Your task to perform on an android device: turn off translation in the chrome app Image 0: 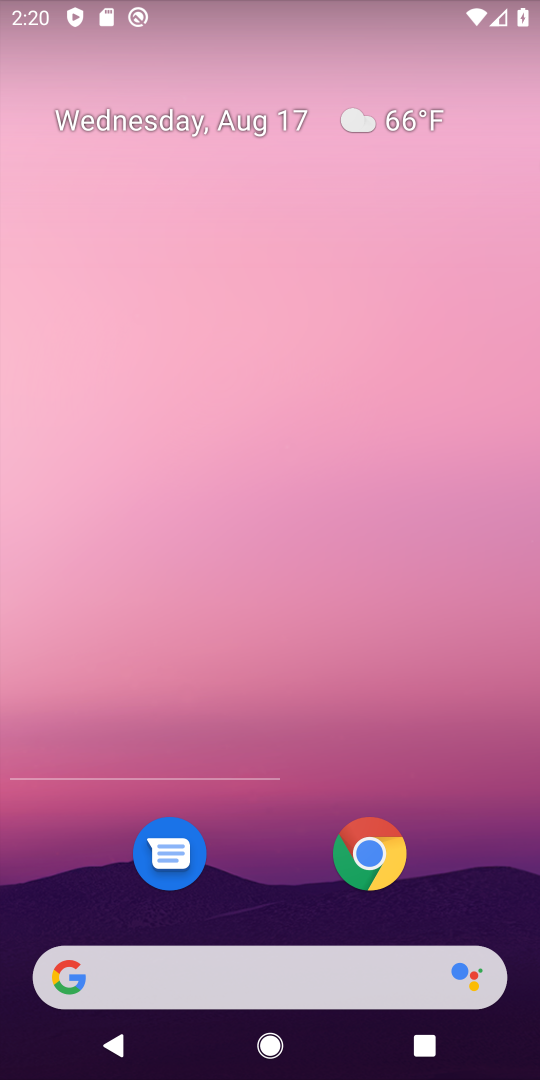
Step 0: press home button
Your task to perform on an android device: turn off translation in the chrome app Image 1: 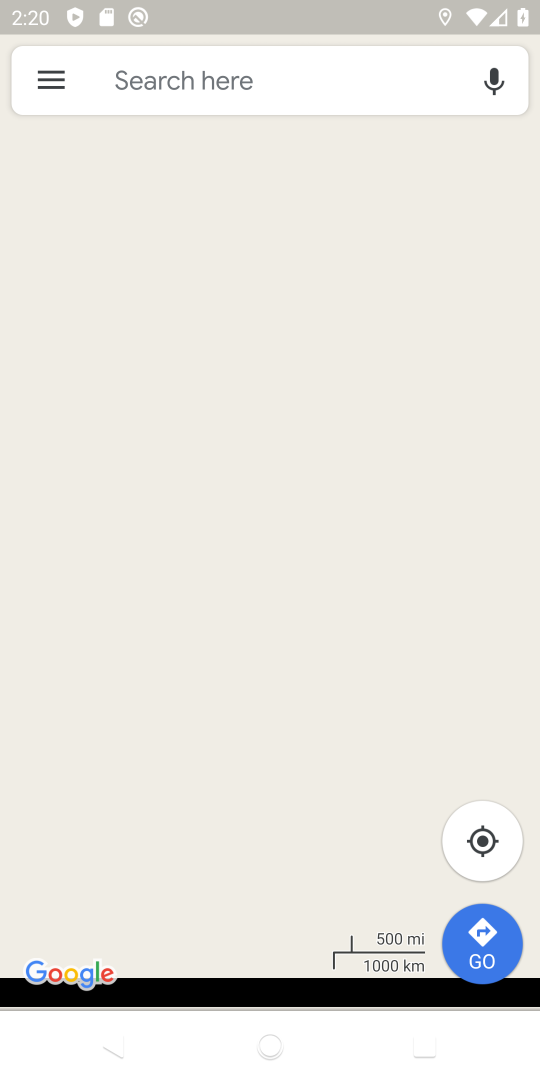
Step 1: click (248, 2)
Your task to perform on an android device: turn off translation in the chrome app Image 2: 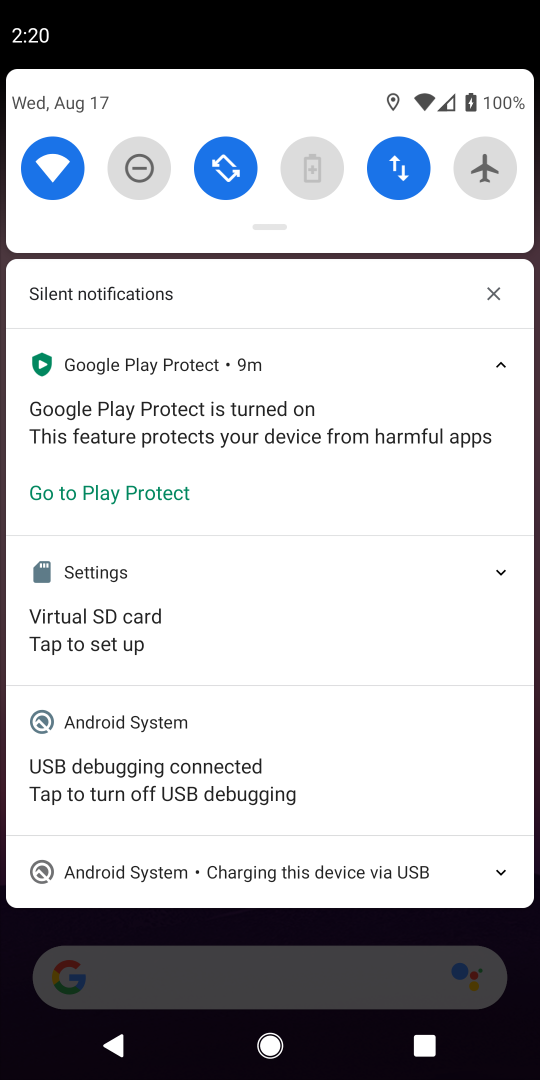
Step 2: press home button
Your task to perform on an android device: turn off translation in the chrome app Image 3: 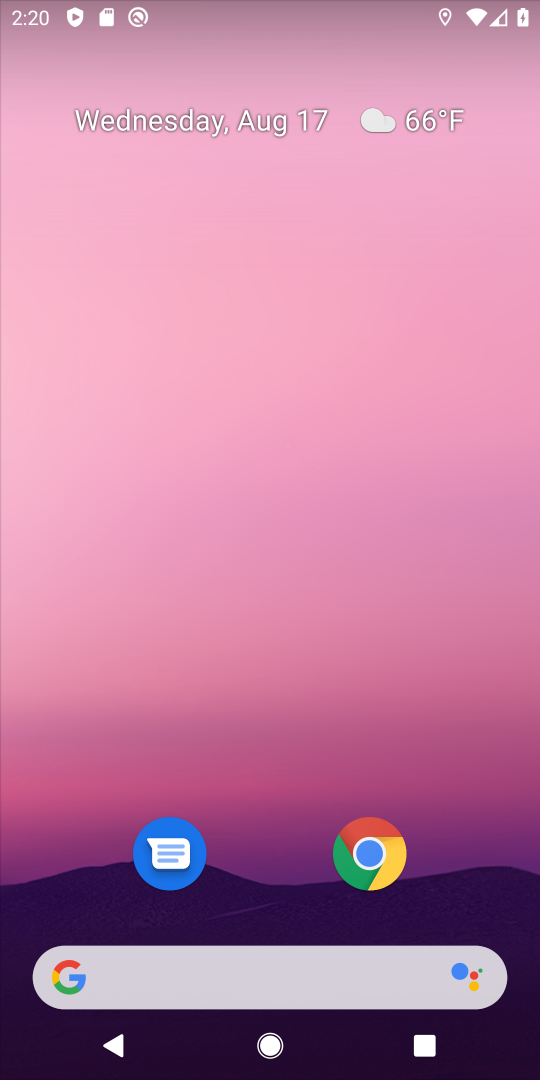
Step 3: click (464, 936)
Your task to perform on an android device: turn off translation in the chrome app Image 4: 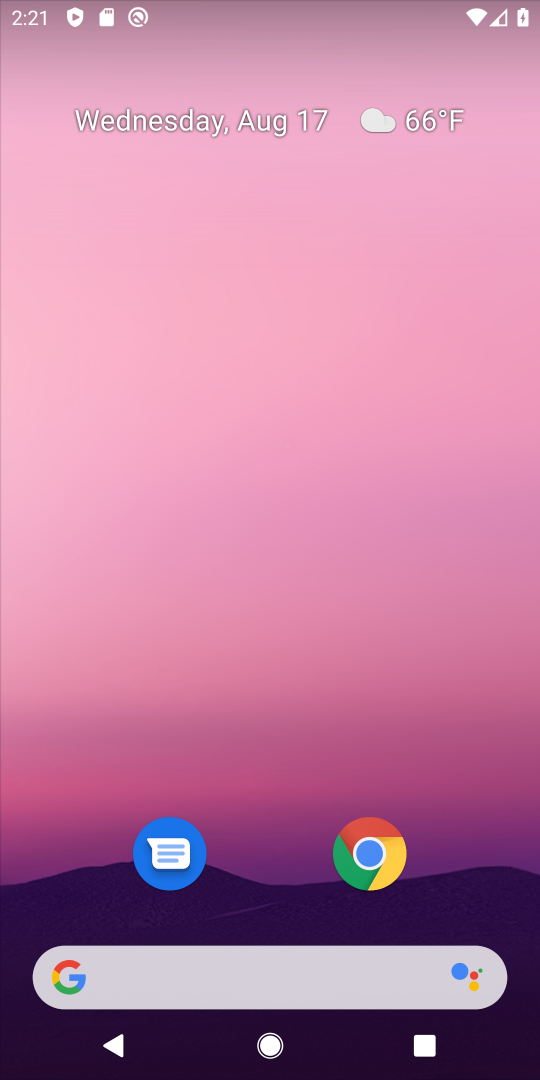
Step 4: drag from (467, 893) to (428, 155)
Your task to perform on an android device: turn off translation in the chrome app Image 5: 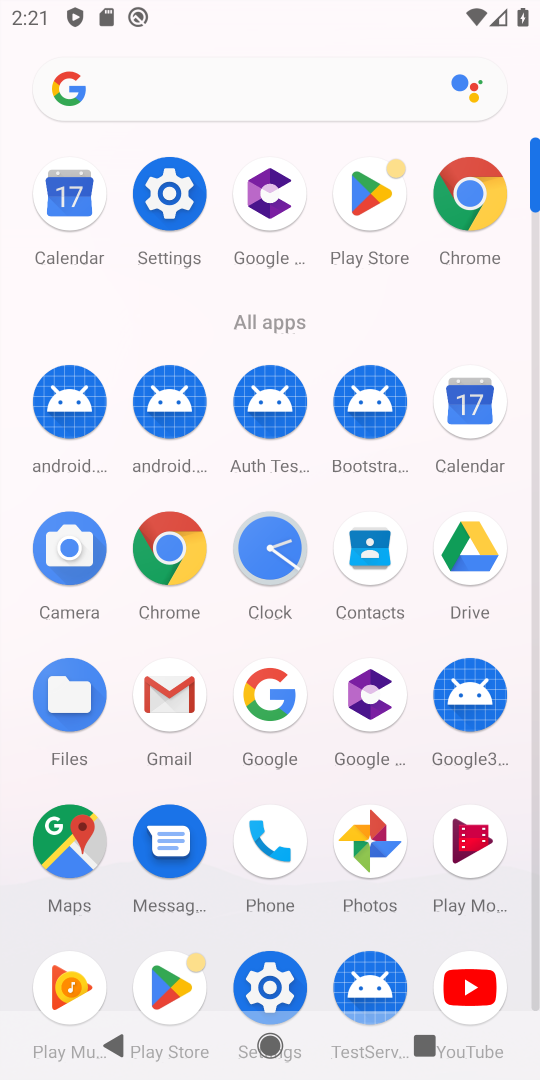
Step 5: click (269, 982)
Your task to perform on an android device: turn off translation in the chrome app Image 6: 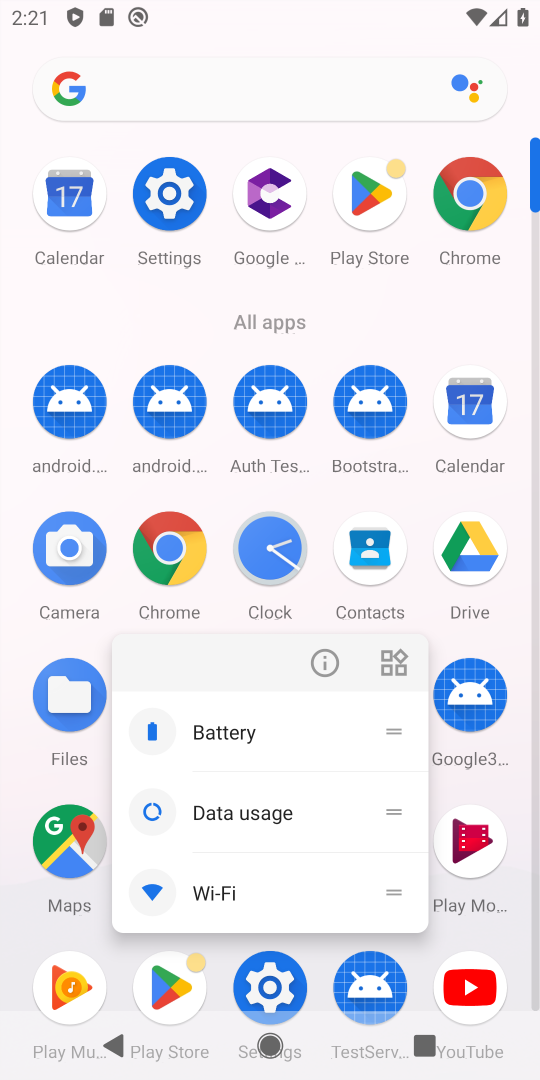
Step 6: click (156, 542)
Your task to perform on an android device: turn off translation in the chrome app Image 7: 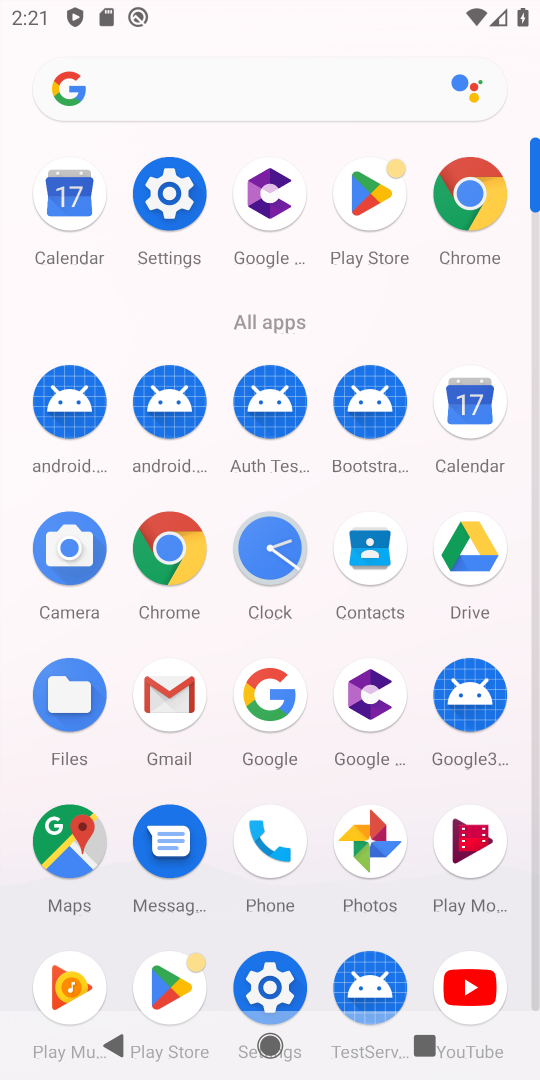
Step 7: click (165, 535)
Your task to perform on an android device: turn off translation in the chrome app Image 8: 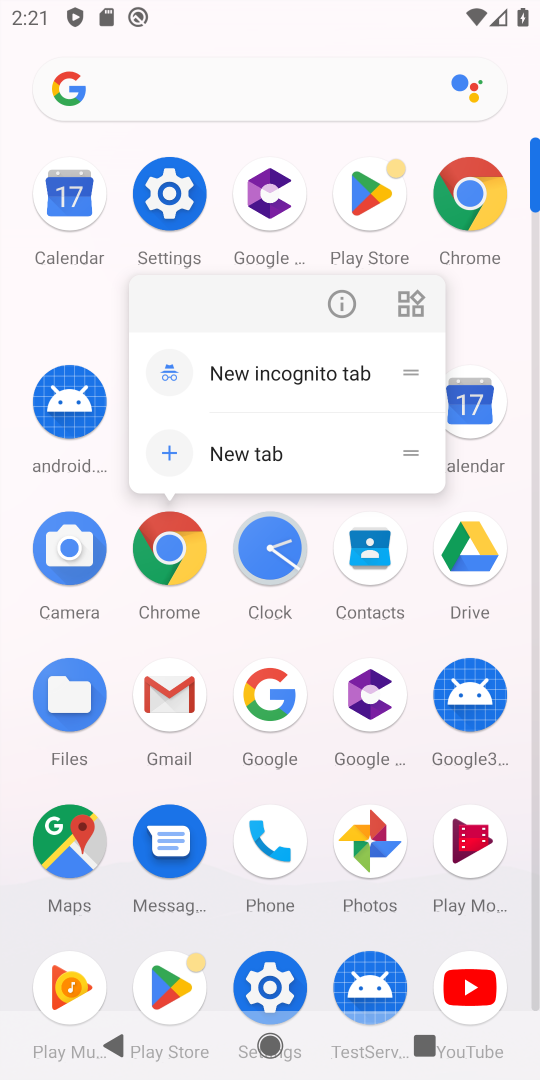
Step 8: click (156, 536)
Your task to perform on an android device: turn off translation in the chrome app Image 9: 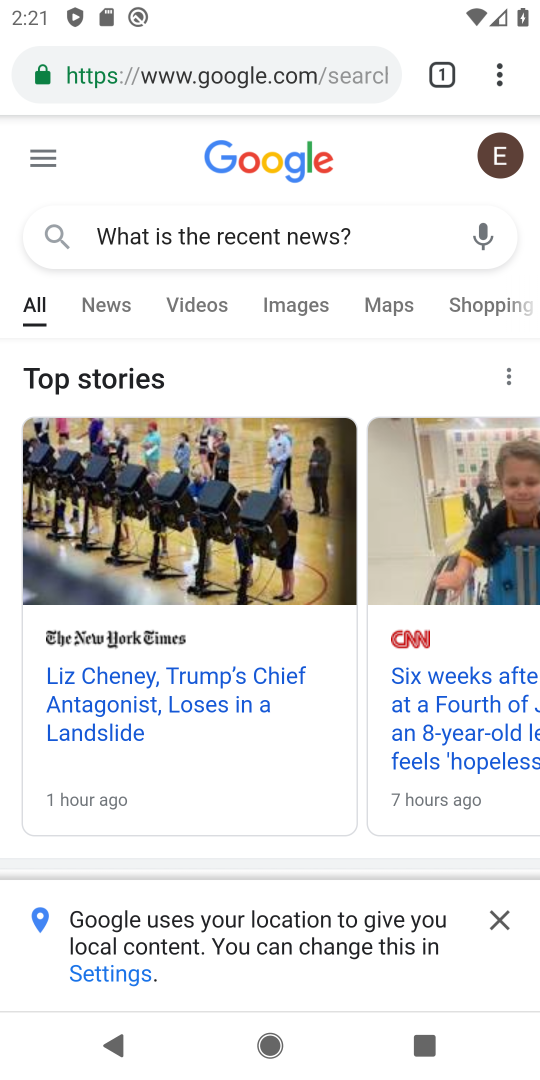
Step 9: click (491, 67)
Your task to perform on an android device: turn off translation in the chrome app Image 10: 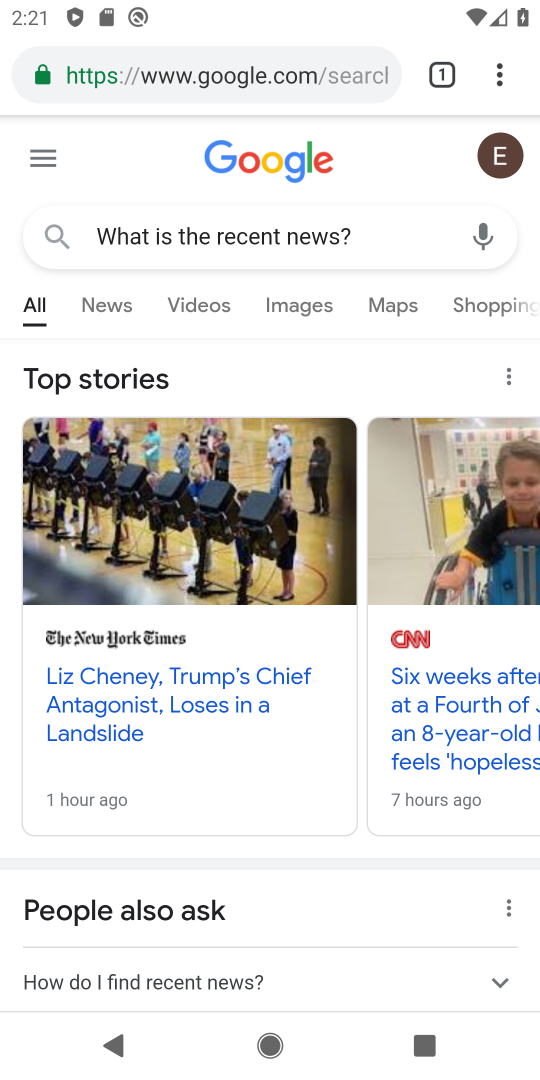
Step 10: click (318, 928)
Your task to perform on an android device: turn off translation in the chrome app Image 11: 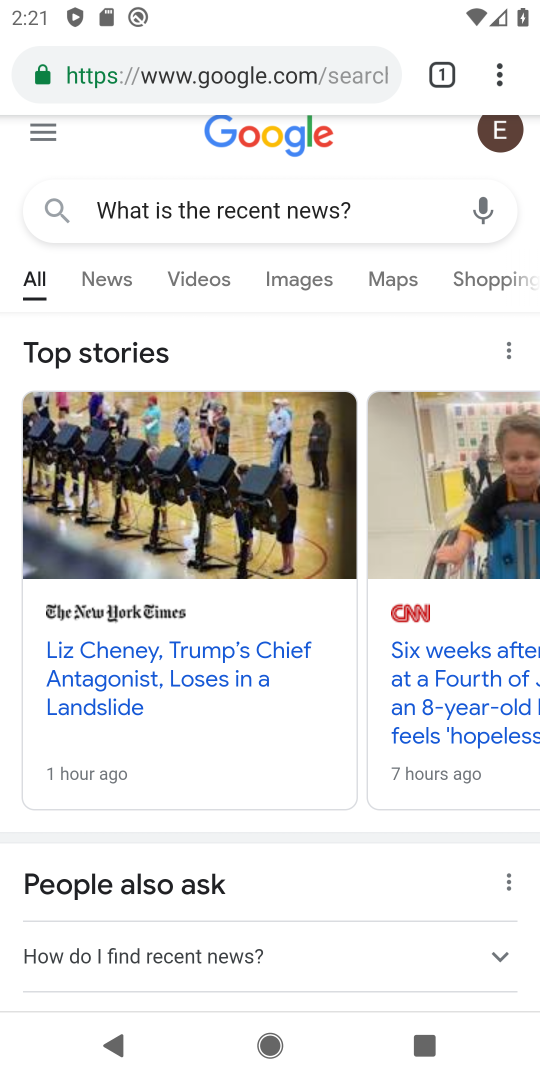
Step 11: drag from (497, 64) to (266, 832)
Your task to perform on an android device: turn off translation in the chrome app Image 12: 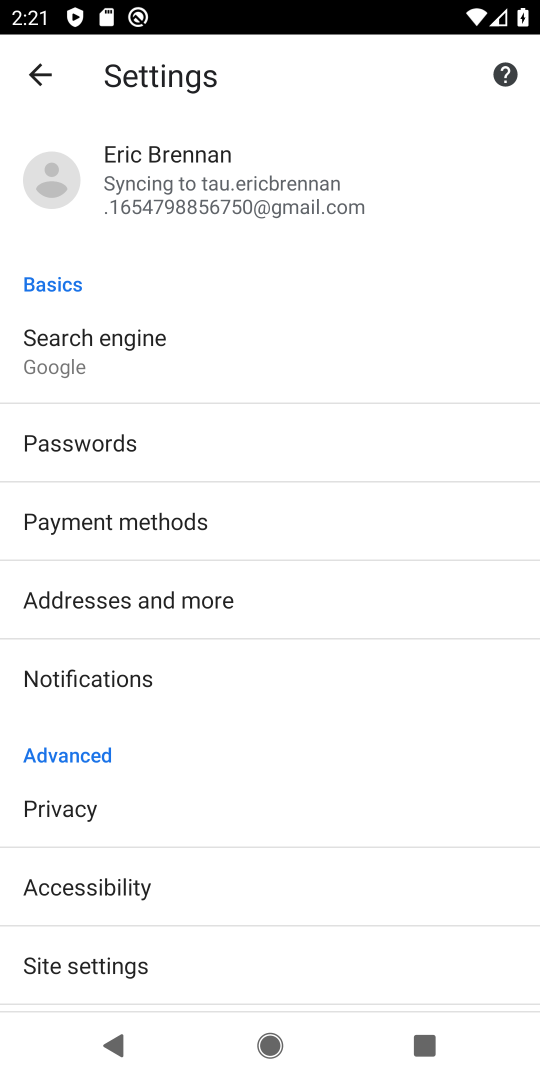
Step 12: drag from (418, 798) to (474, 149)
Your task to perform on an android device: turn off translation in the chrome app Image 13: 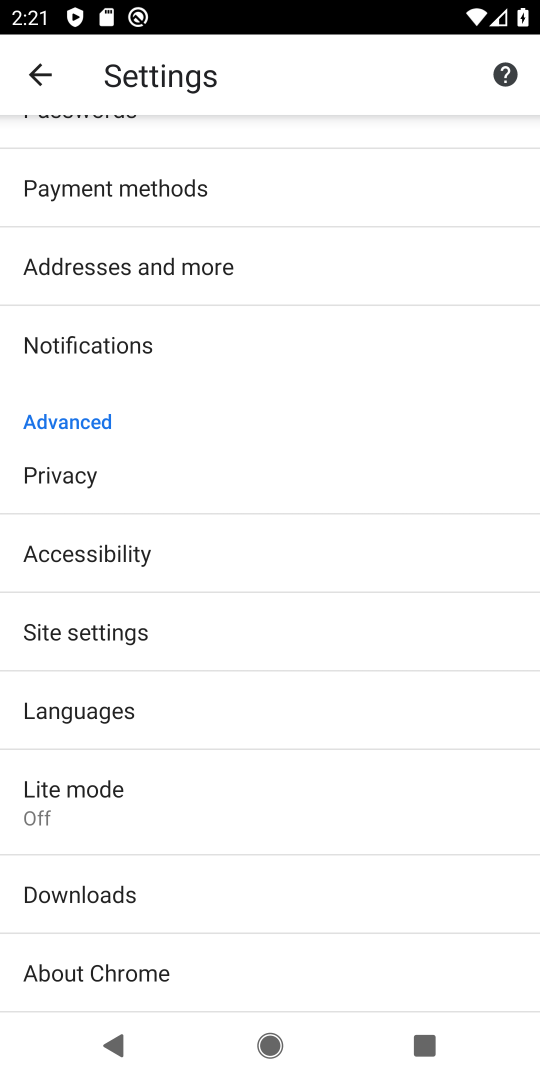
Step 13: click (93, 721)
Your task to perform on an android device: turn off translation in the chrome app Image 14: 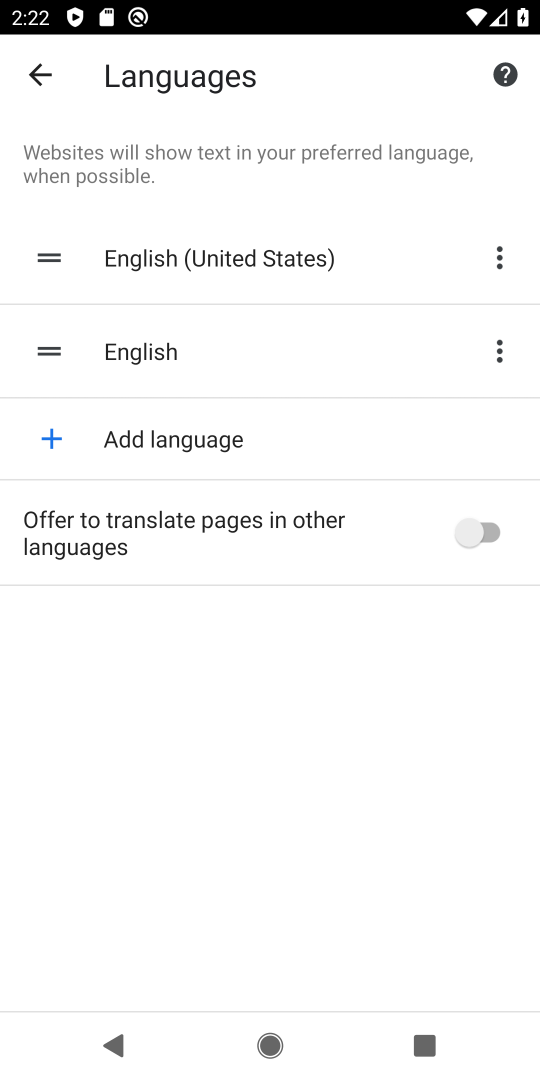
Step 14: task complete